Your task to perform on an android device: Go to Maps Image 0: 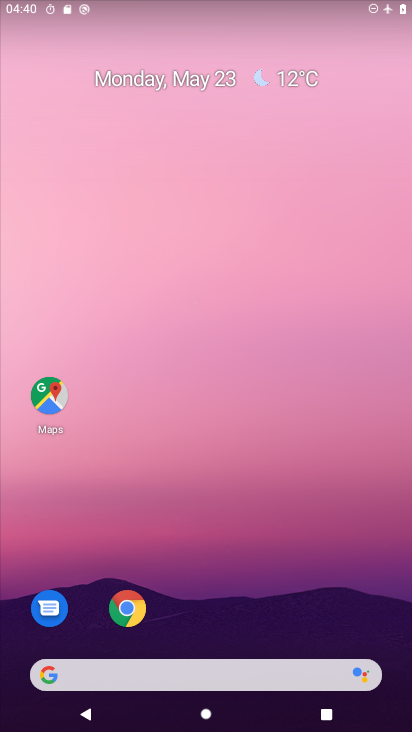
Step 0: click (41, 383)
Your task to perform on an android device: Go to Maps Image 1: 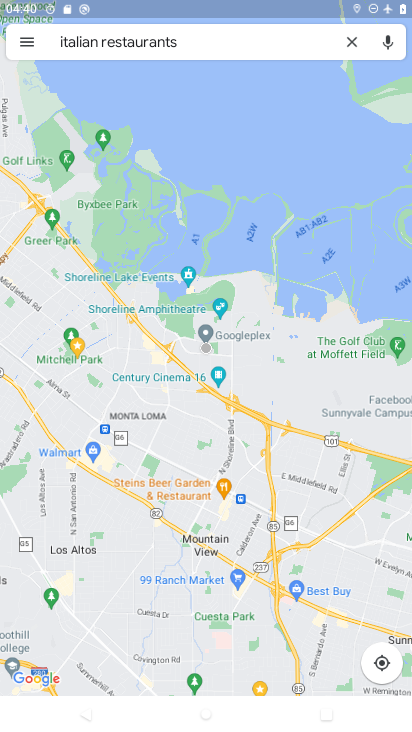
Step 1: task complete